Your task to perform on an android device: Open wifi settings Image 0: 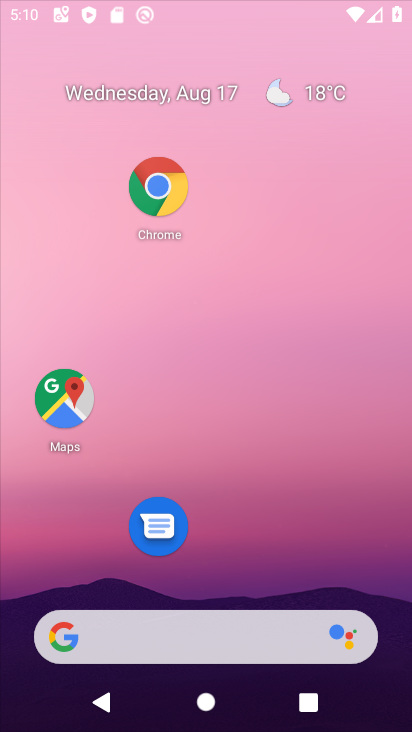
Step 0: drag from (241, 613) to (239, 128)
Your task to perform on an android device: Open wifi settings Image 1: 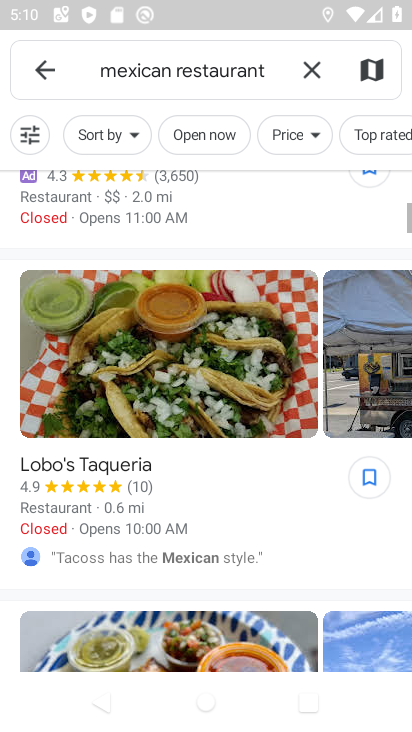
Step 1: drag from (211, 16) to (185, 502)
Your task to perform on an android device: Open wifi settings Image 2: 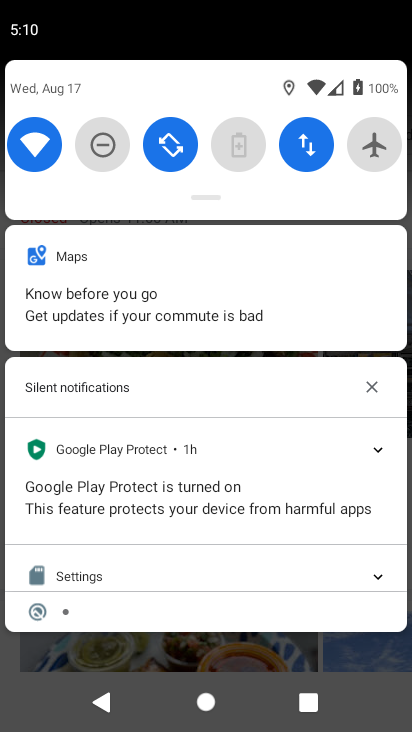
Step 2: click (31, 137)
Your task to perform on an android device: Open wifi settings Image 3: 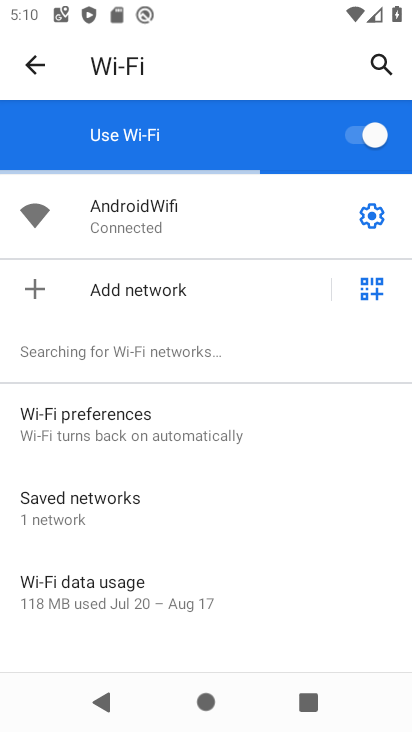
Step 3: task complete